Your task to perform on an android device: How do I get to the nearest electronics store? Image 0: 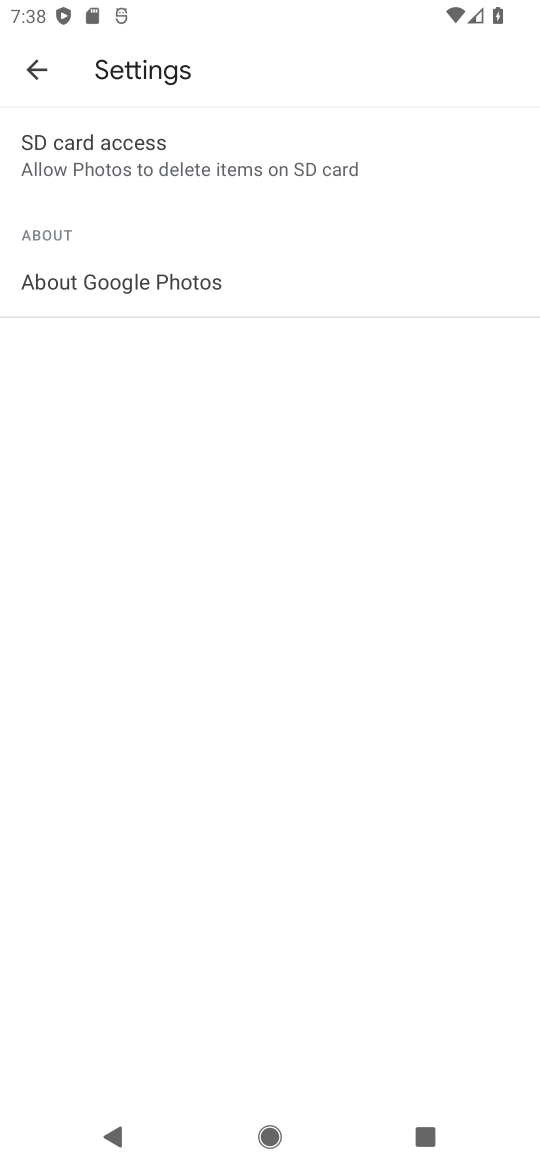
Step 0: press home button
Your task to perform on an android device: How do I get to the nearest electronics store? Image 1: 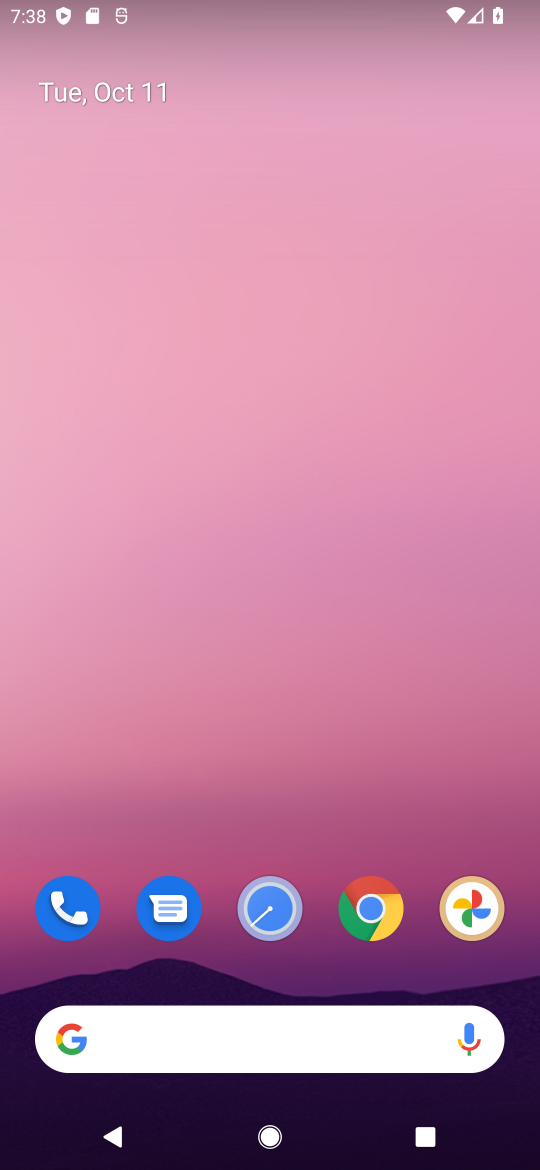
Step 1: click (227, 1023)
Your task to perform on an android device: How do I get to the nearest electronics store? Image 2: 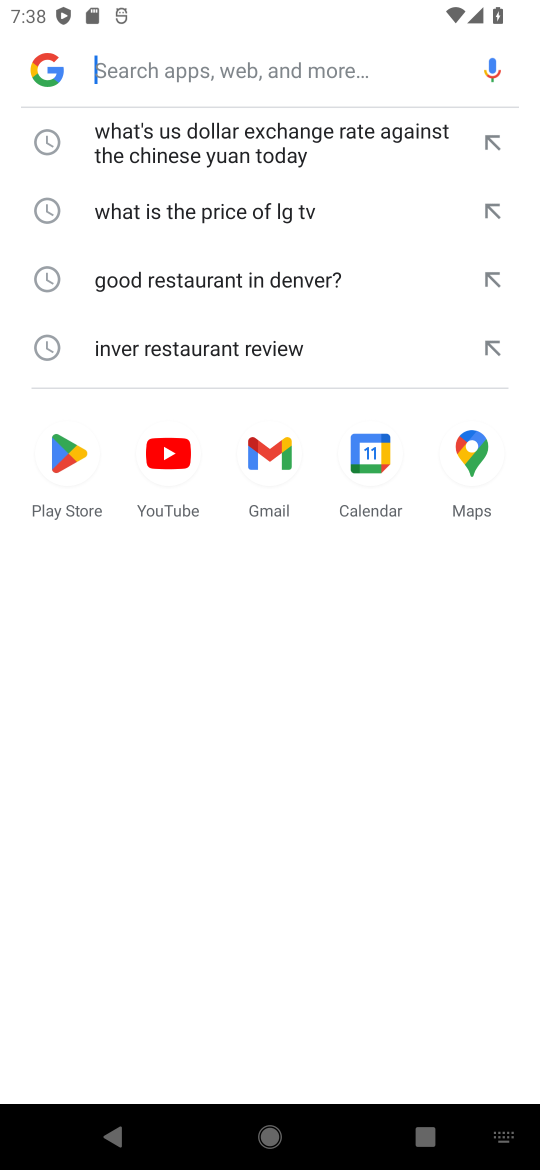
Step 2: type "How do I get to the nearest electronics store"
Your task to perform on an android device: How do I get to the nearest electronics store? Image 3: 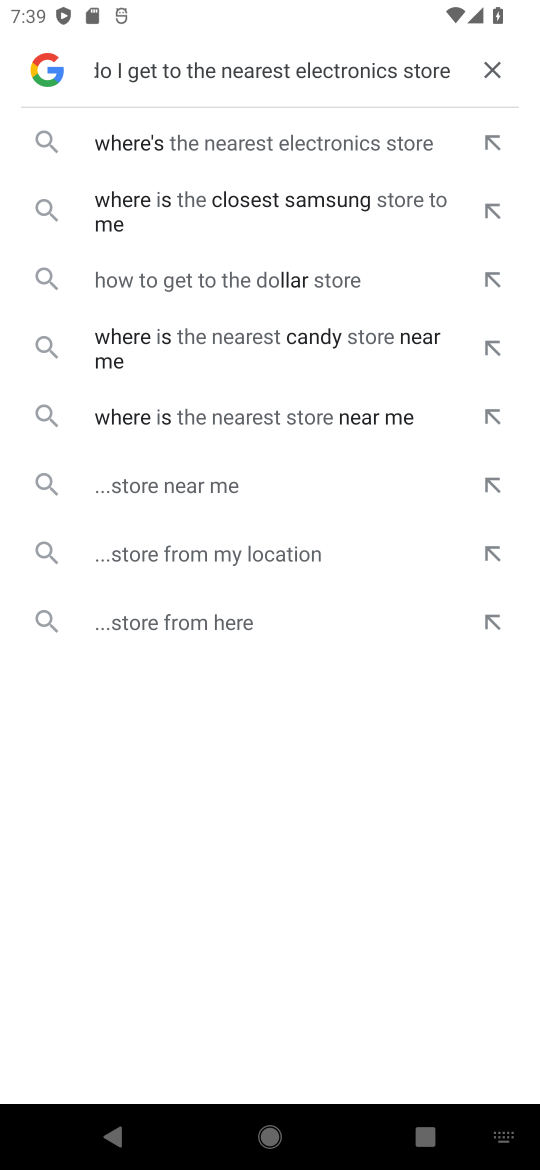
Step 3: click (214, 149)
Your task to perform on an android device: How do I get to the nearest electronics store? Image 4: 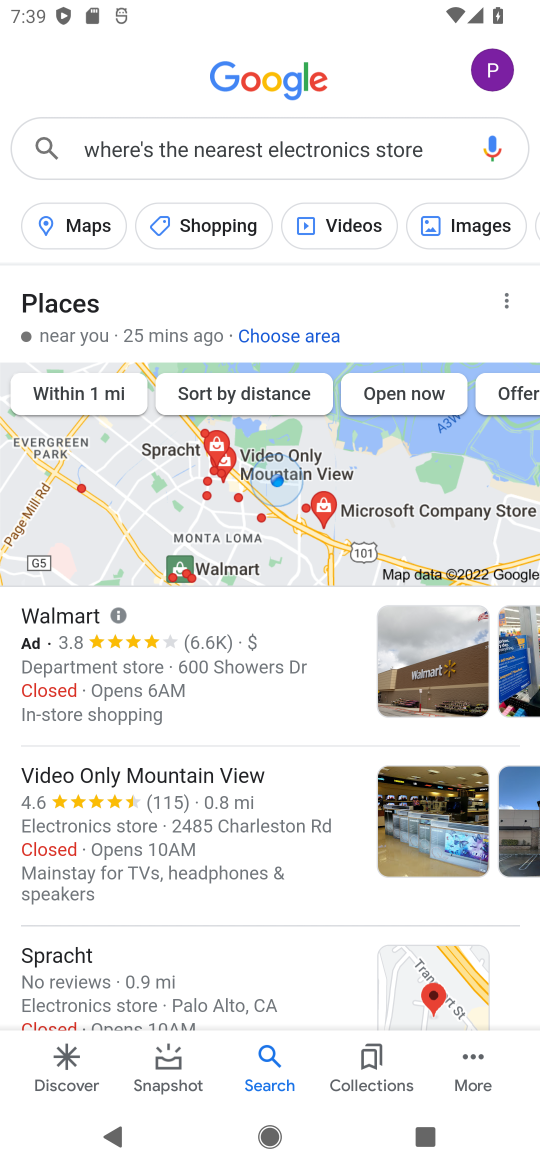
Step 4: task complete